Your task to perform on an android device: clear all cookies in the chrome app Image 0: 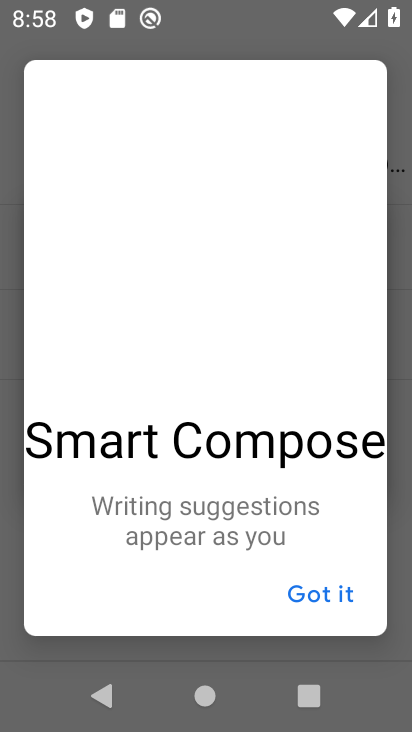
Step 0: press home button
Your task to perform on an android device: clear all cookies in the chrome app Image 1: 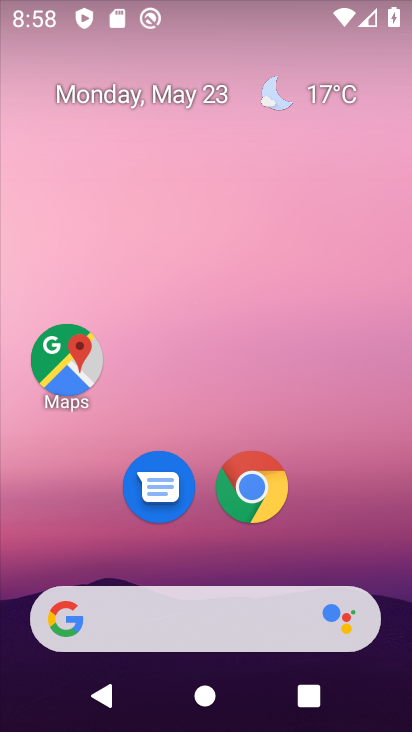
Step 1: click (269, 499)
Your task to perform on an android device: clear all cookies in the chrome app Image 2: 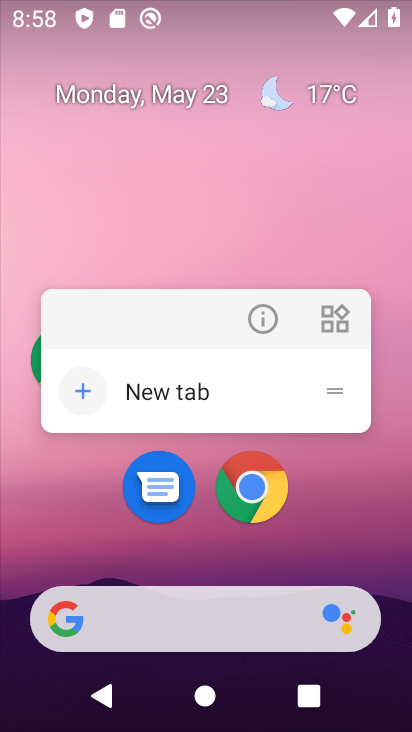
Step 2: click (263, 494)
Your task to perform on an android device: clear all cookies in the chrome app Image 3: 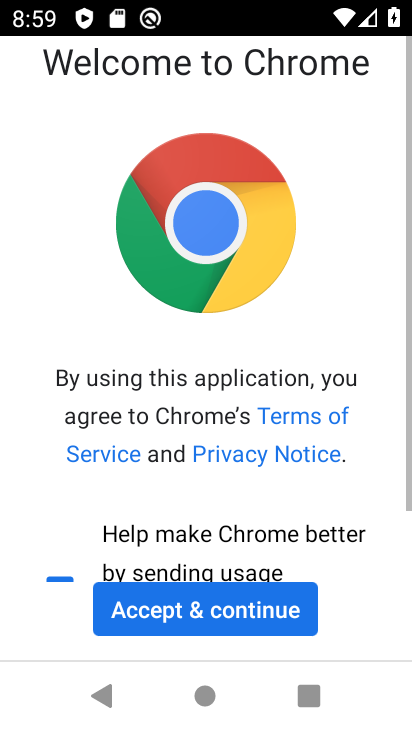
Step 3: click (210, 605)
Your task to perform on an android device: clear all cookies in the chrome app Image 4: 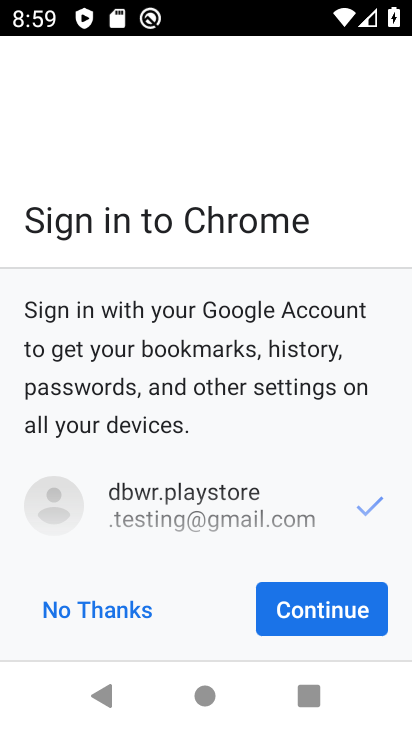
Step 4: click (323, 610)
Your task to perform on an android device: clear all cookies in the chrome app Image 5: 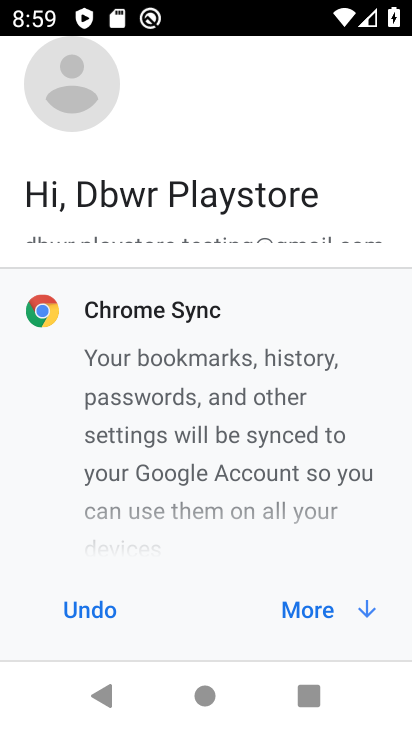
Step 5: click (323, 610)
Your task to perform on an android device: clear all cookies in the chrome app Image 6: 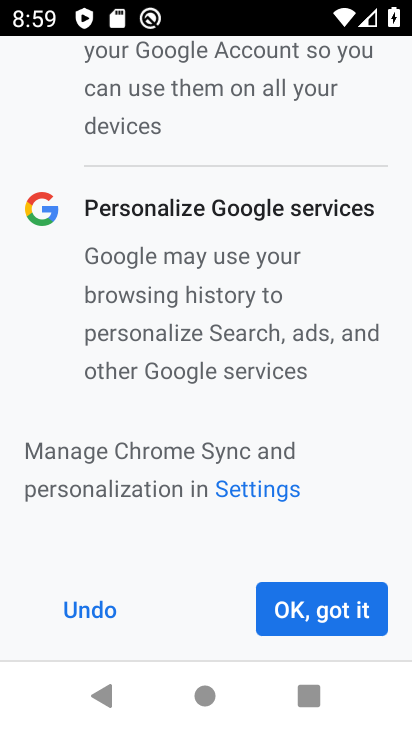
Step 6: click (323, 609)
Your task to perform on an android device: clear all cookies in the chrome app Image 7: 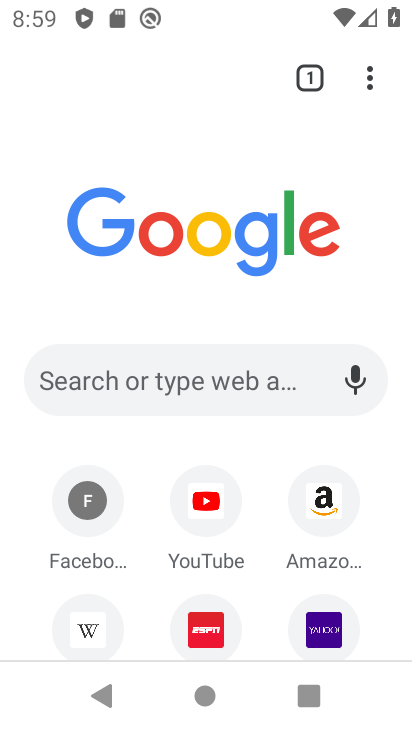
Step 7: click (369, 61)
Your task to perform on an android device: clear all cookies in the chrome app Image 8: 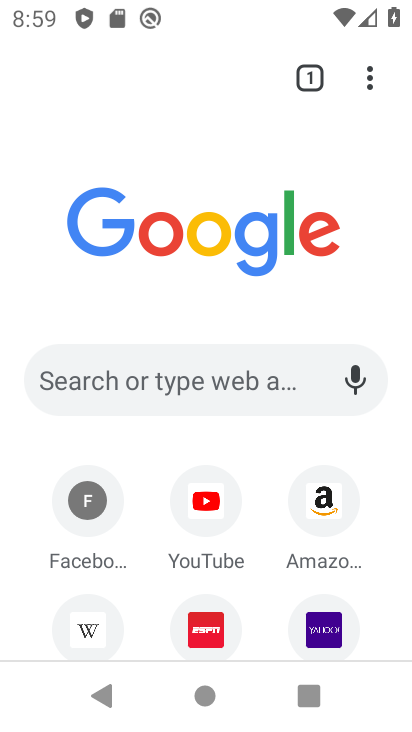
Step 8: click (373, 81)
Your task to perform on an android device: clear all cookies in the chrome app Image 9: 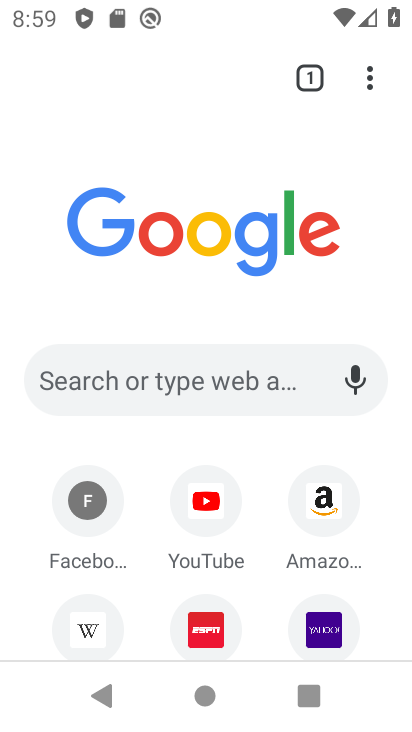
Step 9: drag from (384, 92) to (222, 544)
Your task to perform on an android device: clear all cookies in the chrome app Image 10: 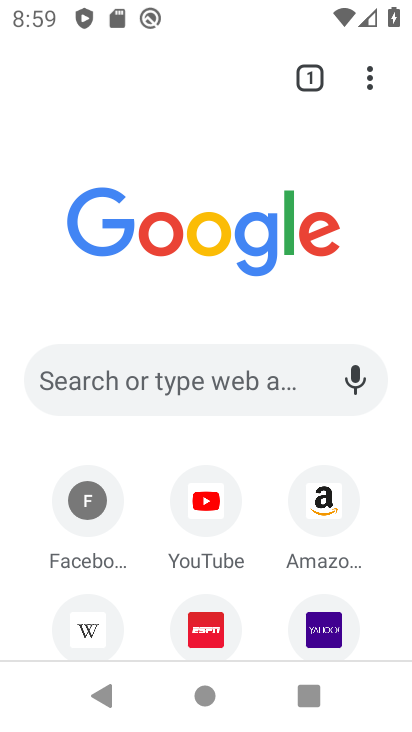
Step 10: drag from (167, 574) to (273, 3)
Your task to perform on an android device: clear all cookies in the chrome app Image 11: 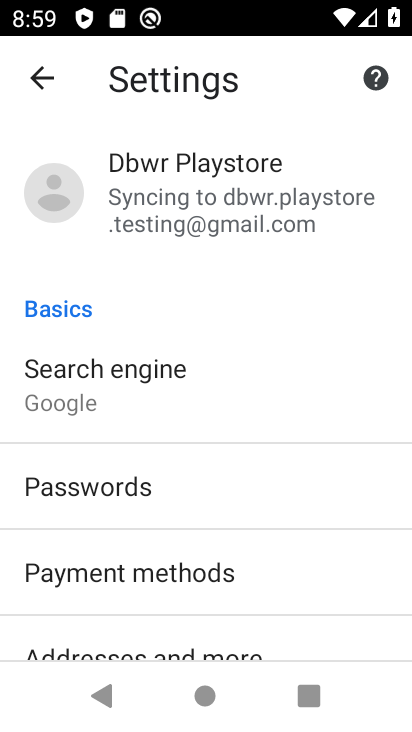
Step 11: drag from (135, 665) to (224, 136)
Your task to perform on an android device: clear all cookies in the chrome app Image 12: 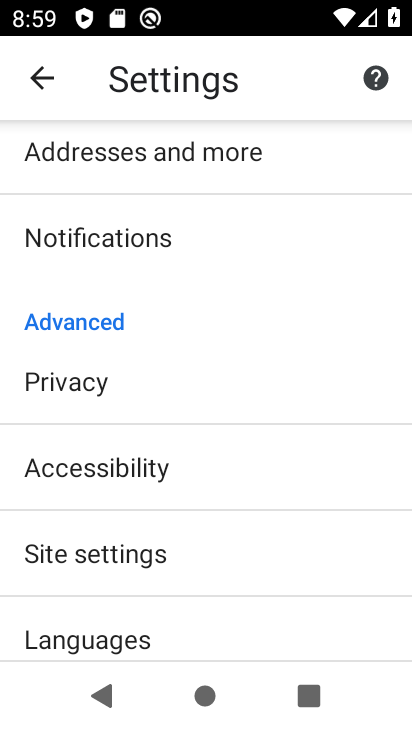
Step 12: click (108, 385)
Your task to perform on an android device: clear all cookies in the chrome app Image 13: 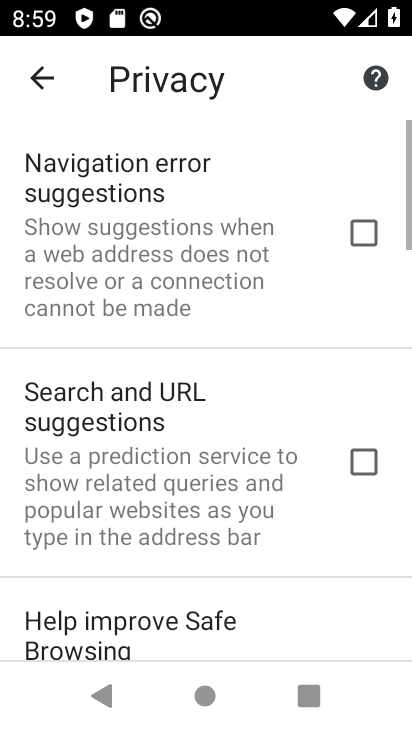
Step 13: drag from (146, 628) to (254, 13)
Your task to perform on an android device: clear all cookies in the chrome app Image 14: 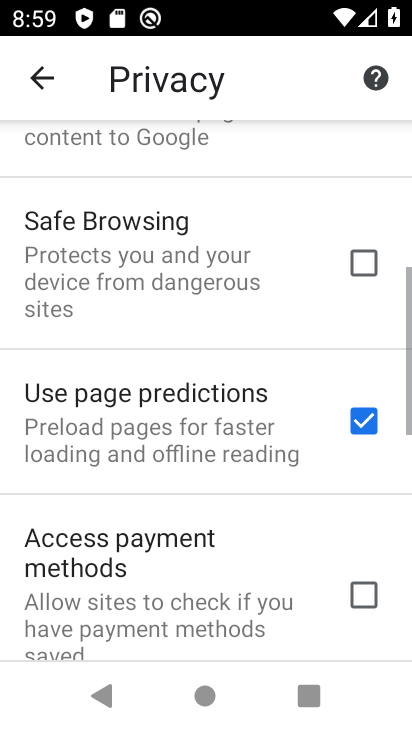
Step 14: drag from (135, 658) to (241, 69)
Your task to perform on an android device: clear all cookies in the chrome app Image 15: 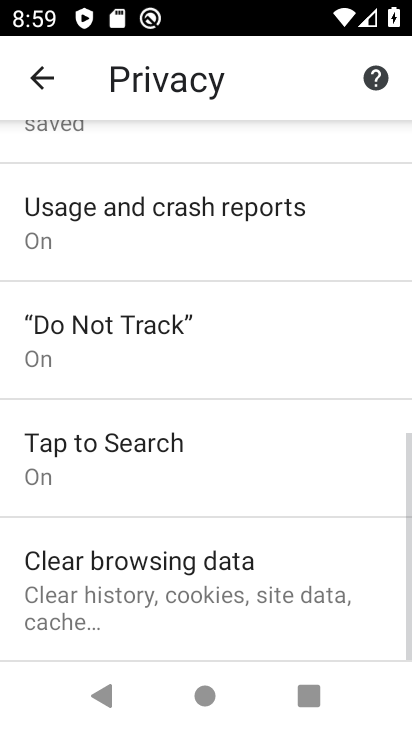
Step 15: click (170, 613)
Your task to perform on an android device: clear all cookies in the chrome app Image 16: 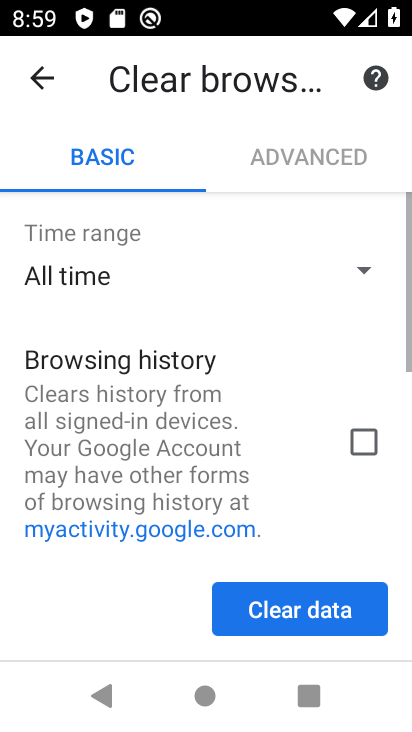
Step 16: drag from (201, 445) to (290, 95)
Your task to perform on an android device: clear all cookies in the chrome app Image 17: 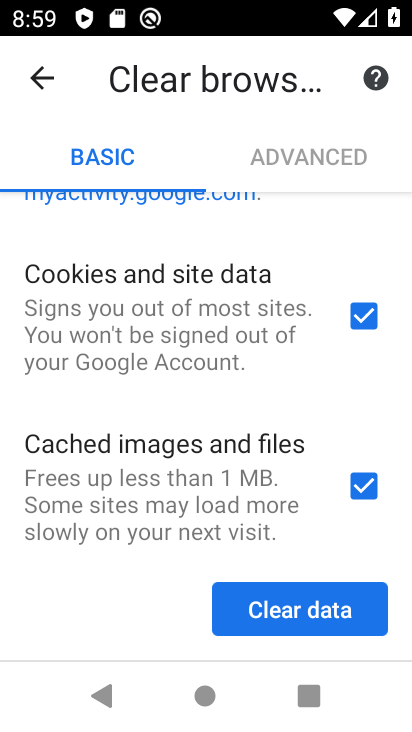
Step 17: click (351, 486)
Your task to perform on an android device: clear all cookies in the chrome app Image 18: 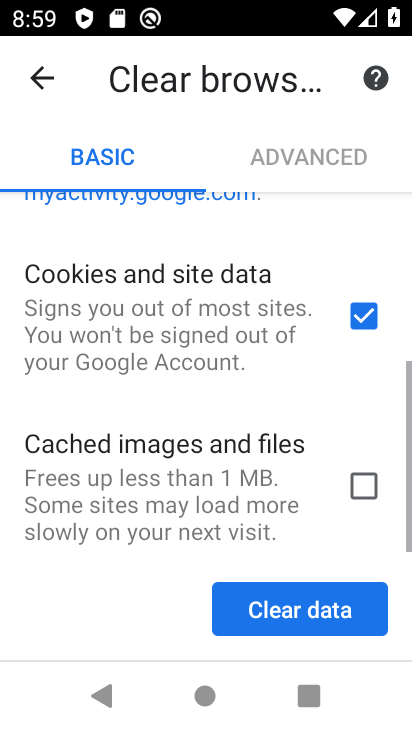
Step 18: click (320, 613)
Your task to perform on an android device: clear all cookies in the chrome app Image 19: 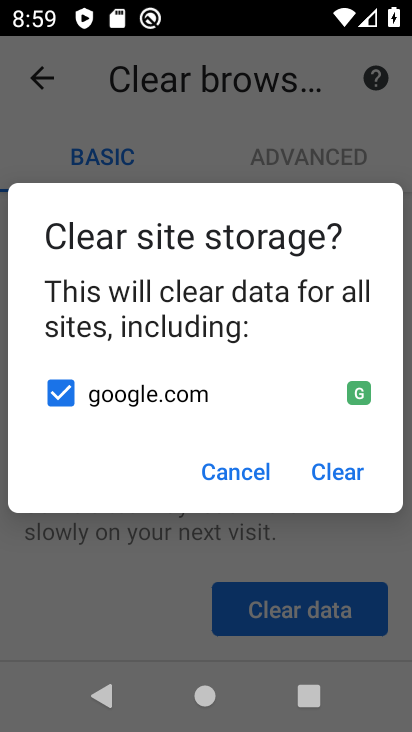
Step 19: click (331, 499)
Your task to perform on an android device: clear all cookies in the chrome app Image 20: 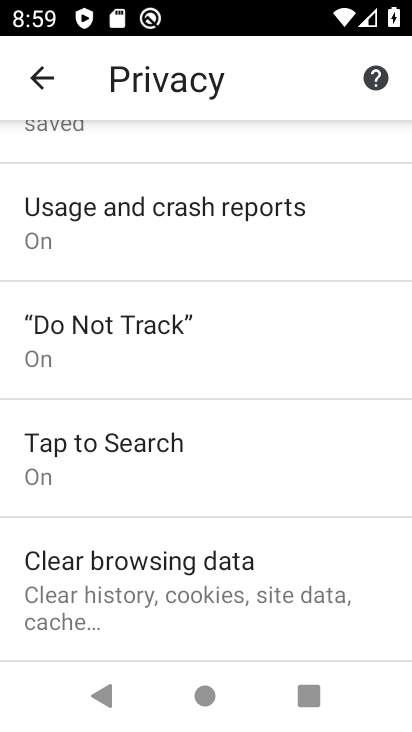
Step 20: task complete